Your task to perform on an android device: Go to sound settings Image 0: 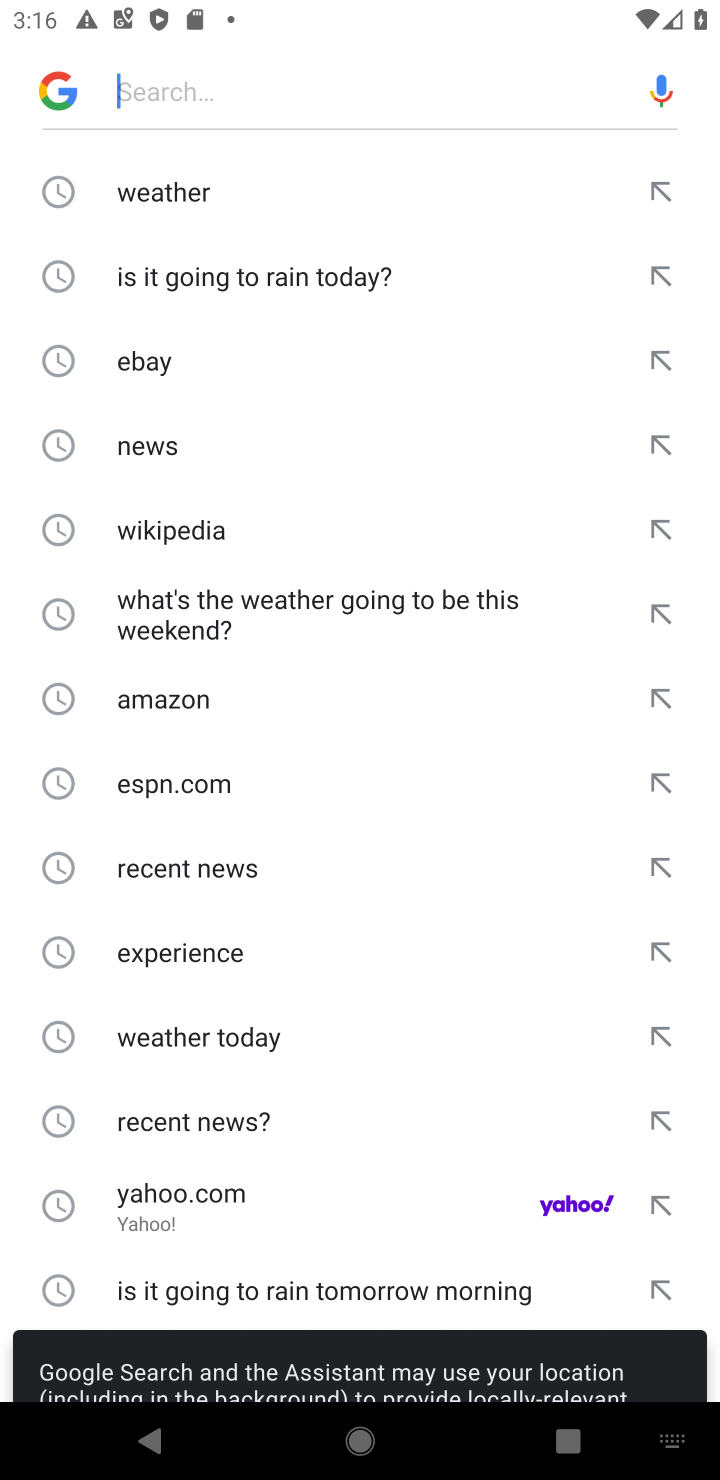
Step 0: press home button
Your task to perform on an android device: Go to sound settings Image 1: 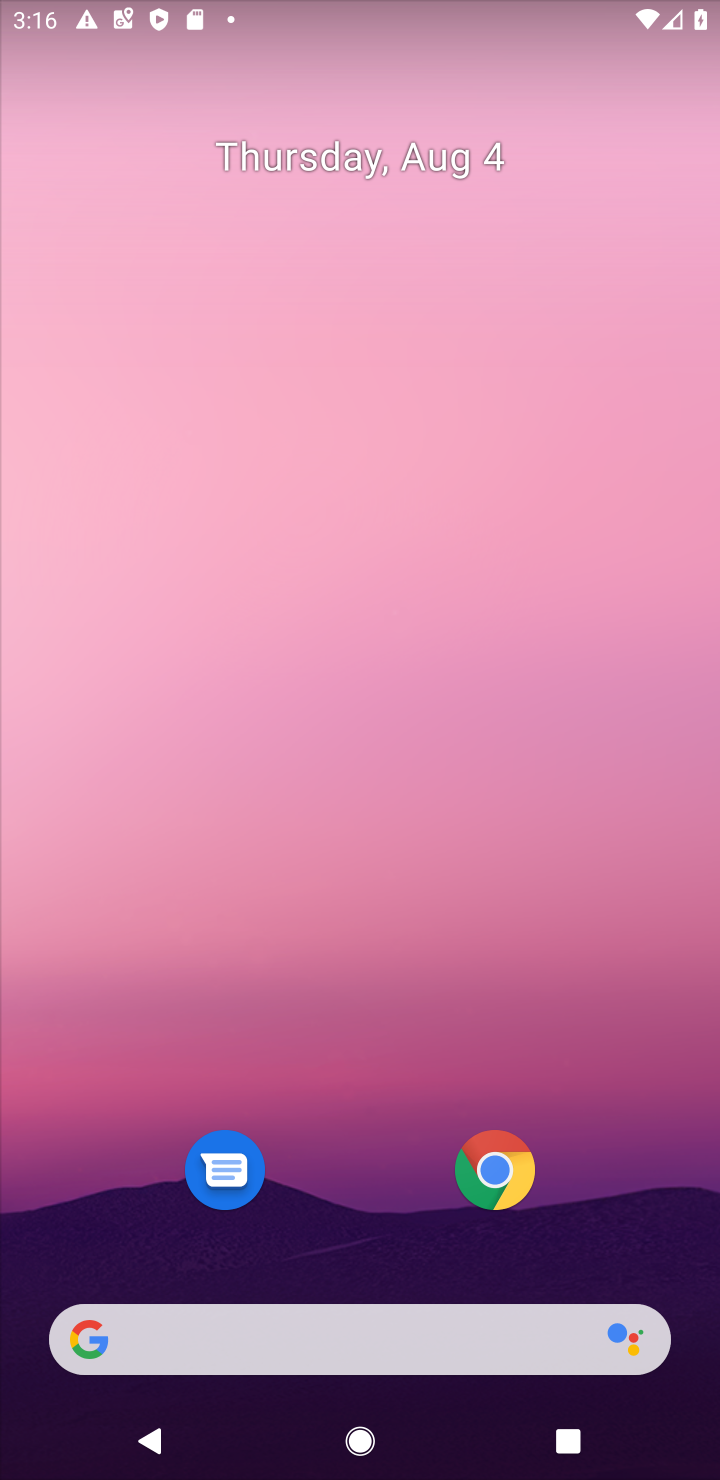
Step 1: drag from (649, 1229) to (592, 298)
Your task to perform on an android device: Go to sound settings Image 2: 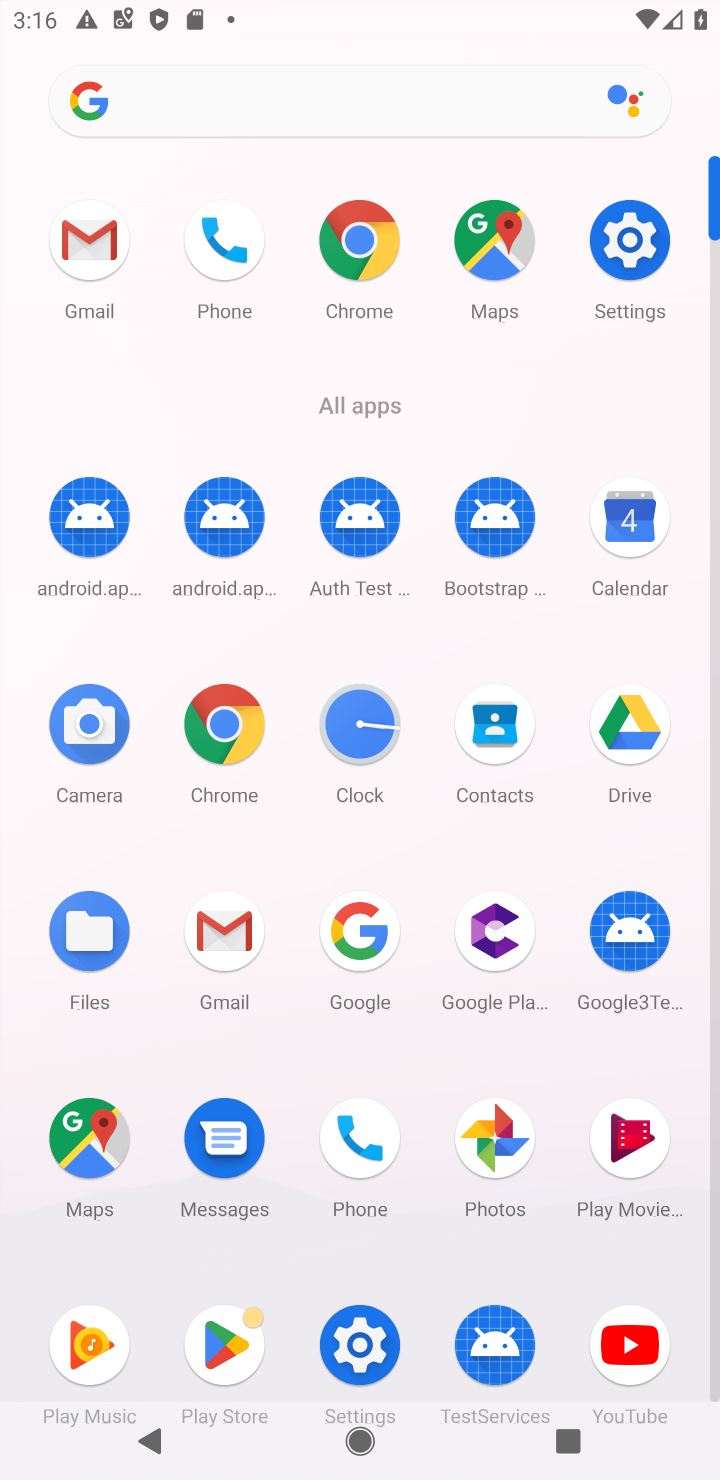
Step 2: click (359, 1339)
Your task to perform on an android device: Go to sound settings Image 3: 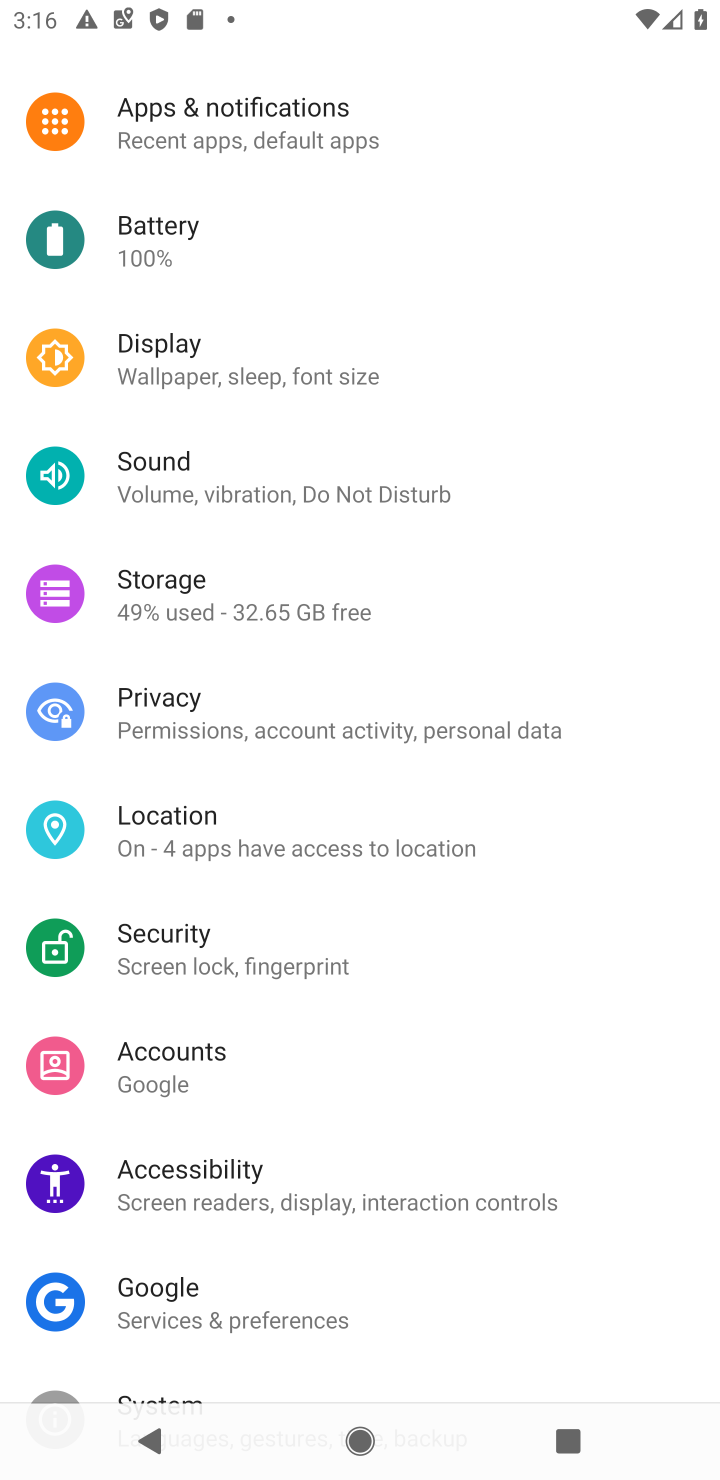
Step 3: click (163, 478)
Your task to perform on an android device: Go to sound settings Image 4: 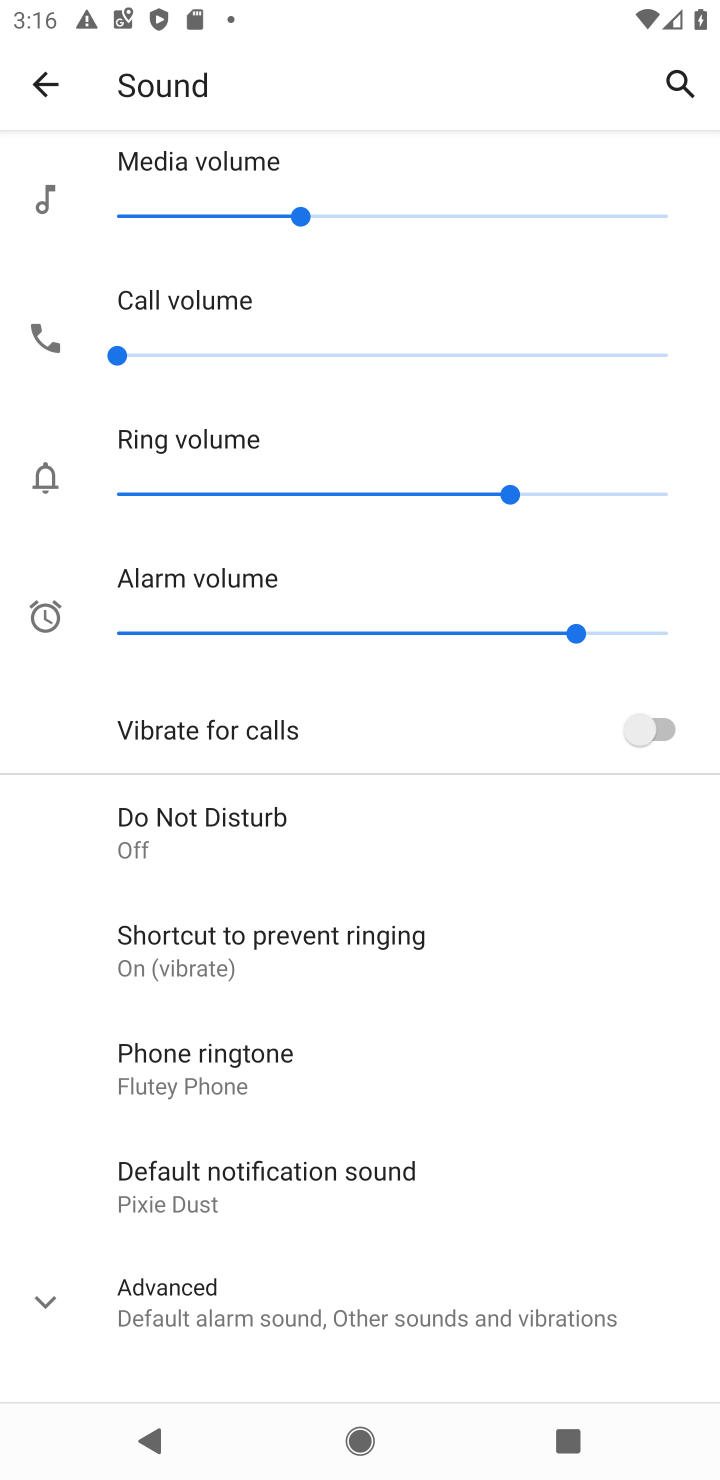
Step 4: drag from (484, 1132) to (464, 541)
Your task to perform on an android device: Go to sound settings Image 5: 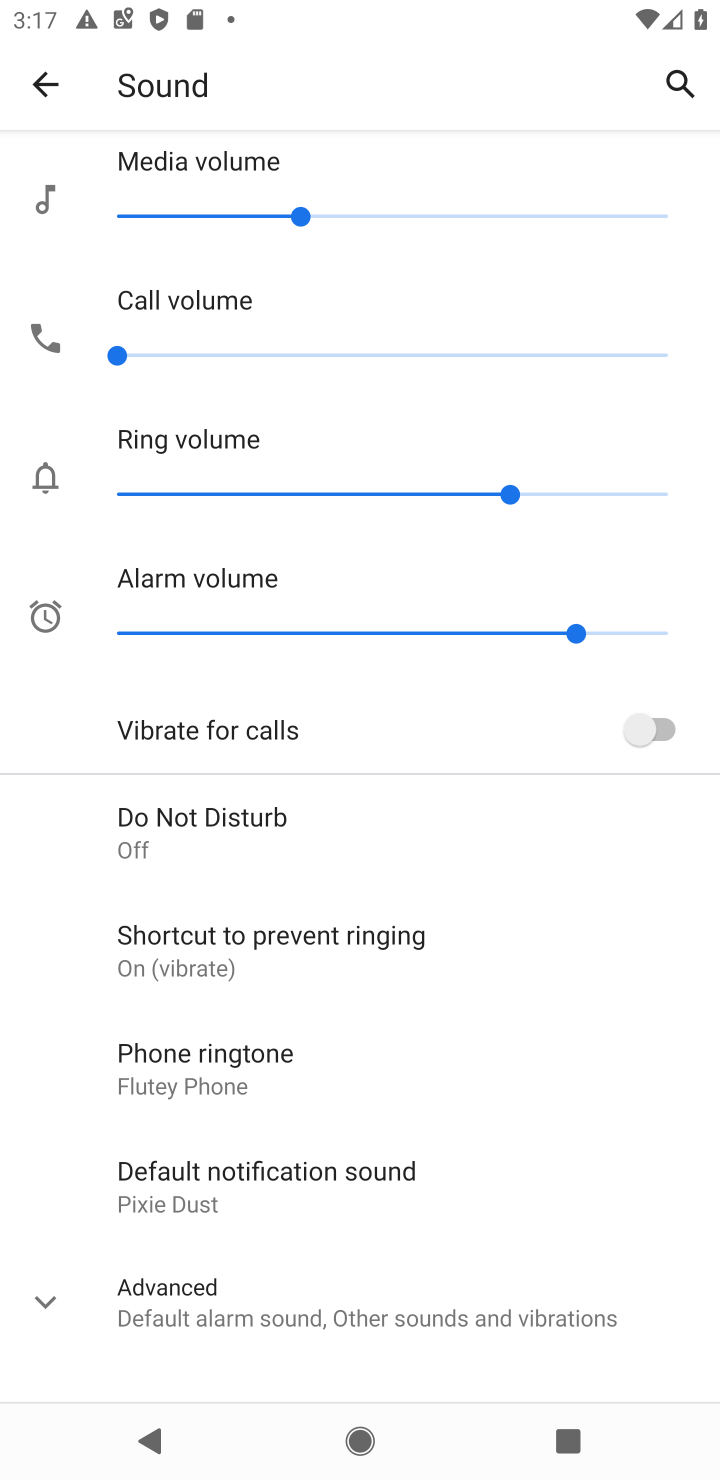
Step 5: click (41, 1308)
Your task to perform on an android device: Go to sound settings Image 6: 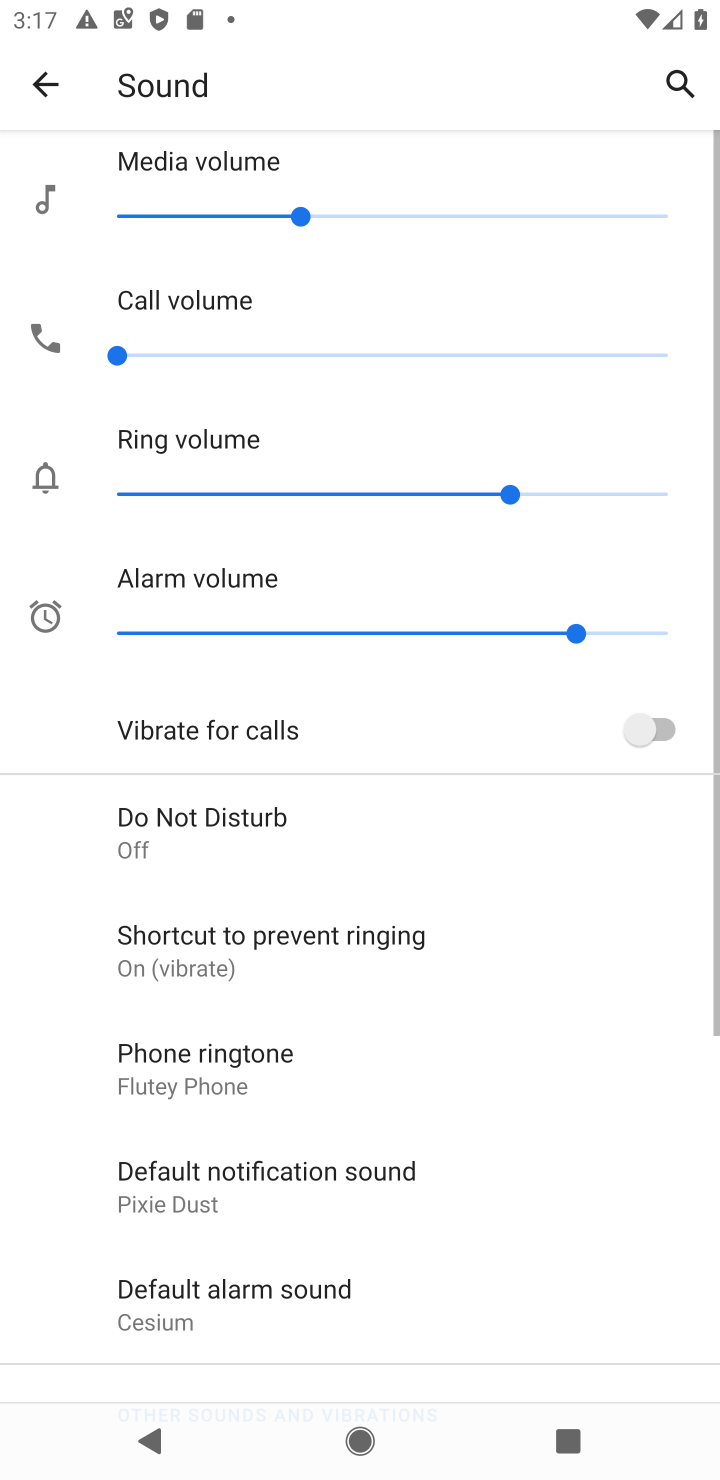
Step 6: task complete